Your task to perform on an android device: Show me the alarms in the clock app Image 0: 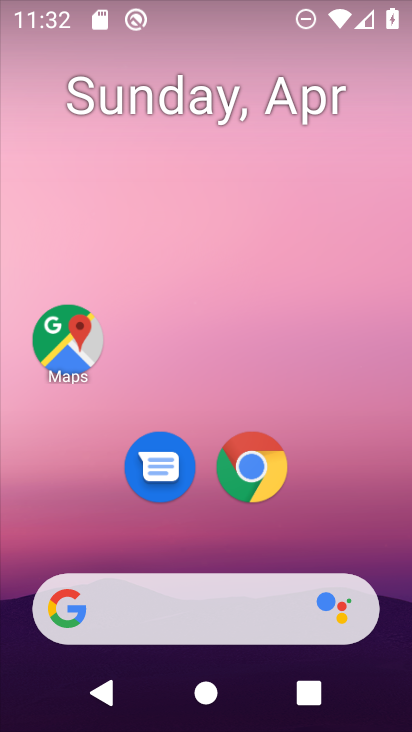
Step 0: drag from (380, 522) to (380, 108)
Your task to perform on an android device: Show me the alarms in the clock app Image 1: 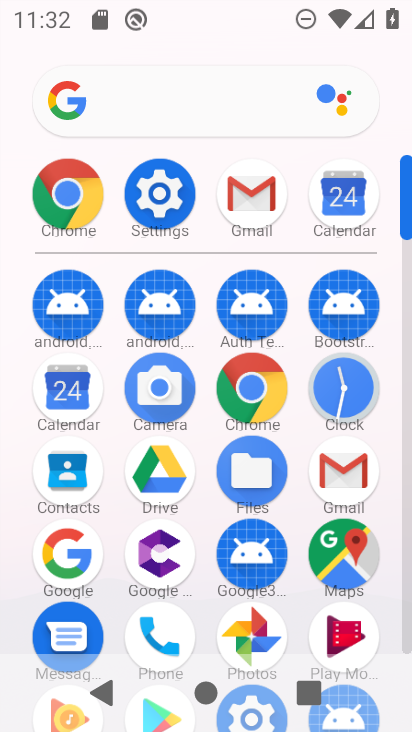
Step 1: click (356, 388)
Your task to perform on an android device: Show me the alarms in the clock app Image 2: 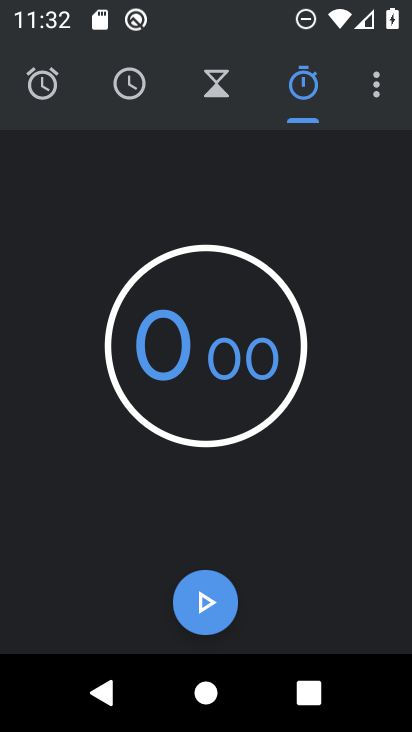
Step 2: click (33, 90)
Your task to perform on an android device: Show me the alarms in the clock app Image 3: 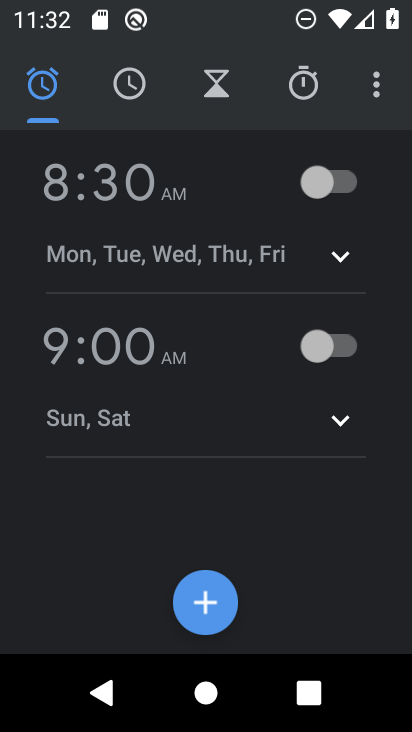
Step 3: task complete